Your task to perform on an android device: Open Yahoo.com Image 0: 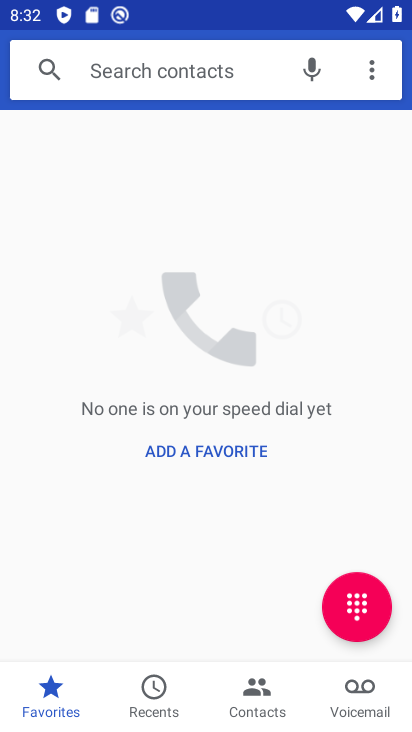
Step 0: press home button
Your task to perform on an android device: Open Yahoo.com Image 1: 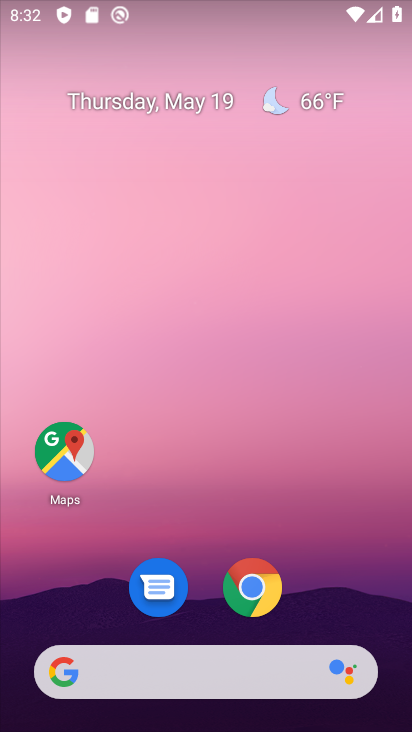
Step 1: drag from (286, 703) to (265, 134)
Your task to perform on an android device: Open Yahoo.com Image 2: 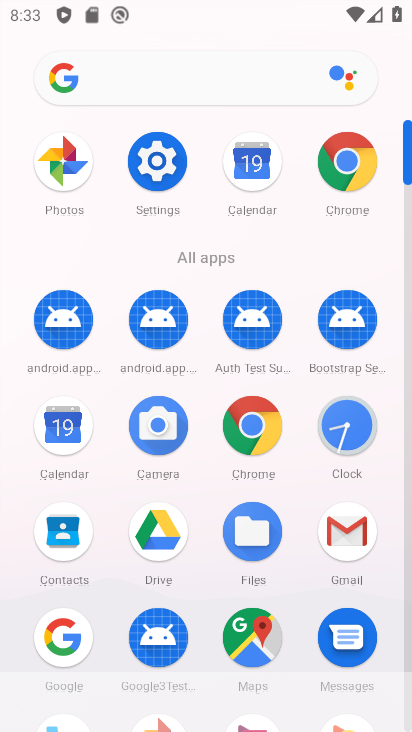
Step 2: click (349, 172)
Your task to perform on an android device: Open Yahoo.com Image 3: 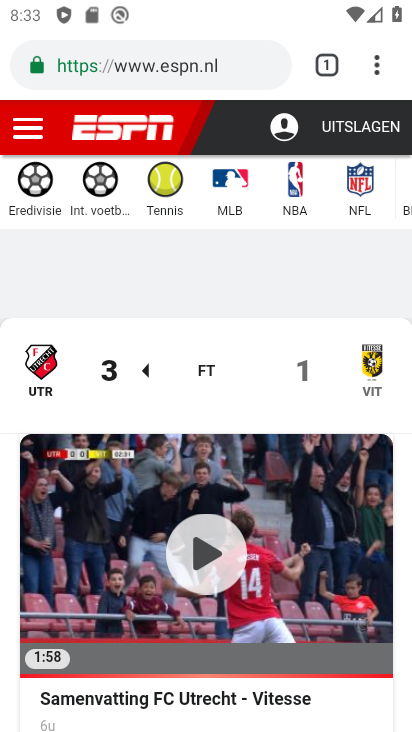
Step 3: click (307, 66)
Your task to perform on an android device: Open Yahoo.com Image 4: 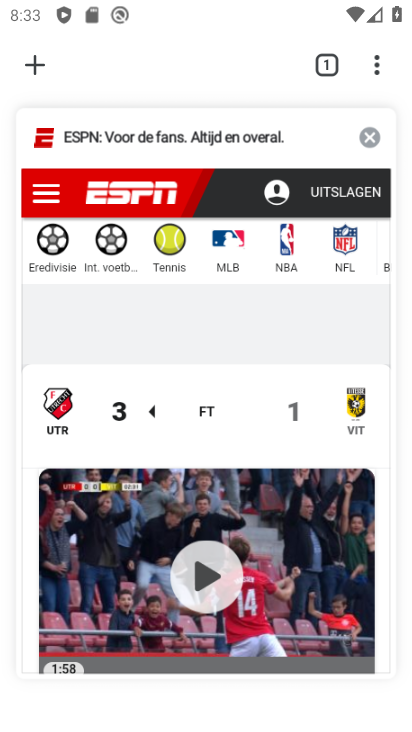
Step 4: click (51, 60)
Your task to perform on an android device: Open Yahoo.com Image 5: 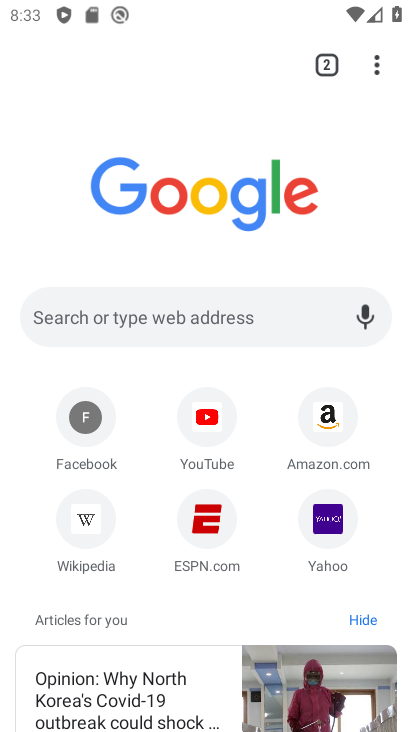
Step 5: click (329, 540)
Your task to perform on an android device: Open Yahoo.com Image 6: 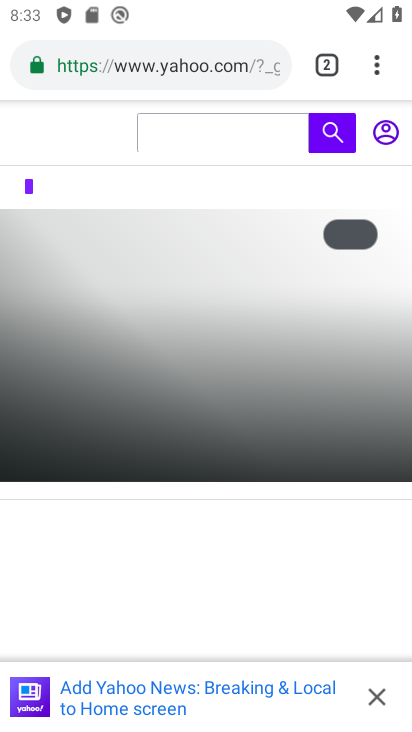
Step 6: task complete